Your task to perform on an android device: delete the emails in spam in the gmail app Image 0: 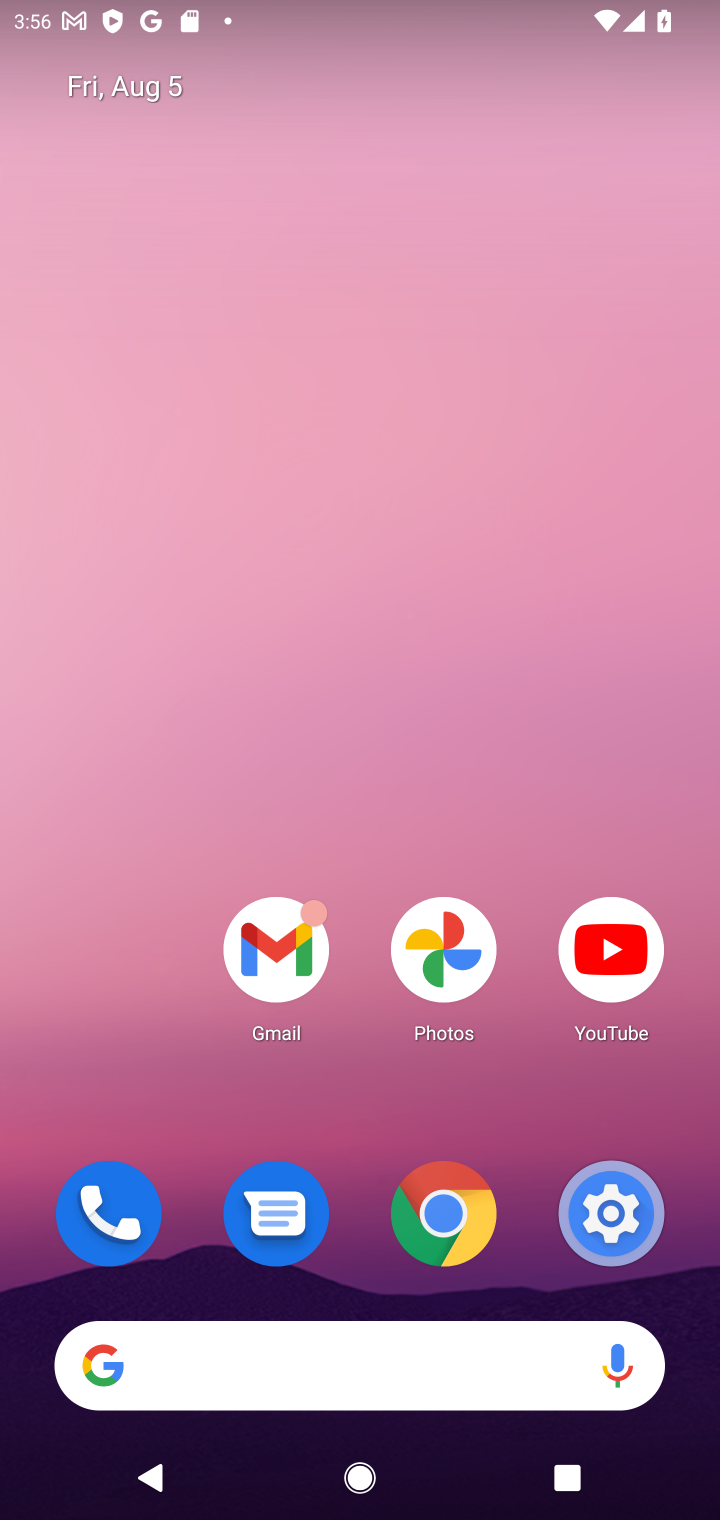
Step 0: click (284, 977)
Your task to perform on an android device: delete the emails in spam in the gmail app Image 1: 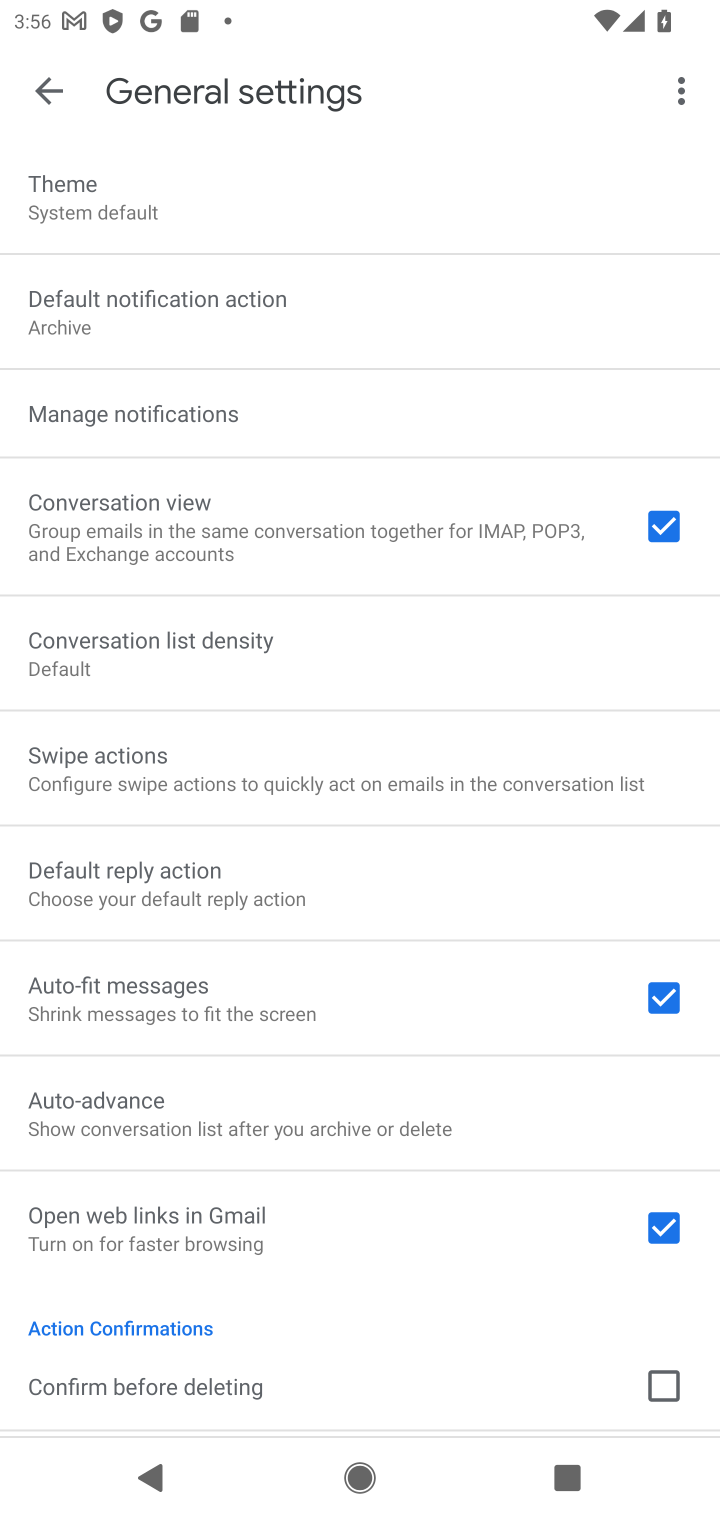
Step 1: task complete